Your task to perform on an android device: clear history in the chrome app Image 0: 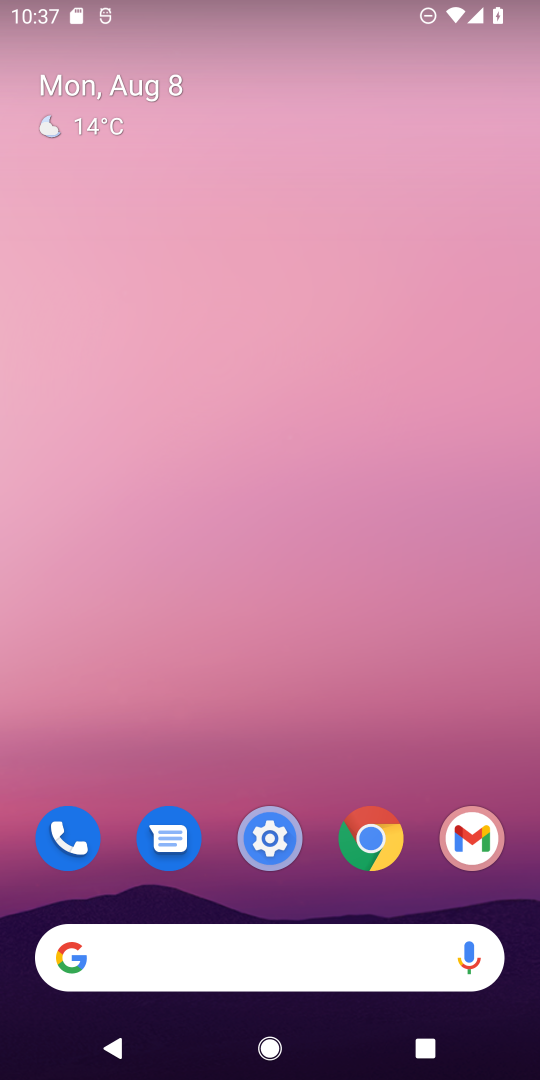
Step 0: press home button
Your task to perform on an android device: clear history in the chrome app Image 1: 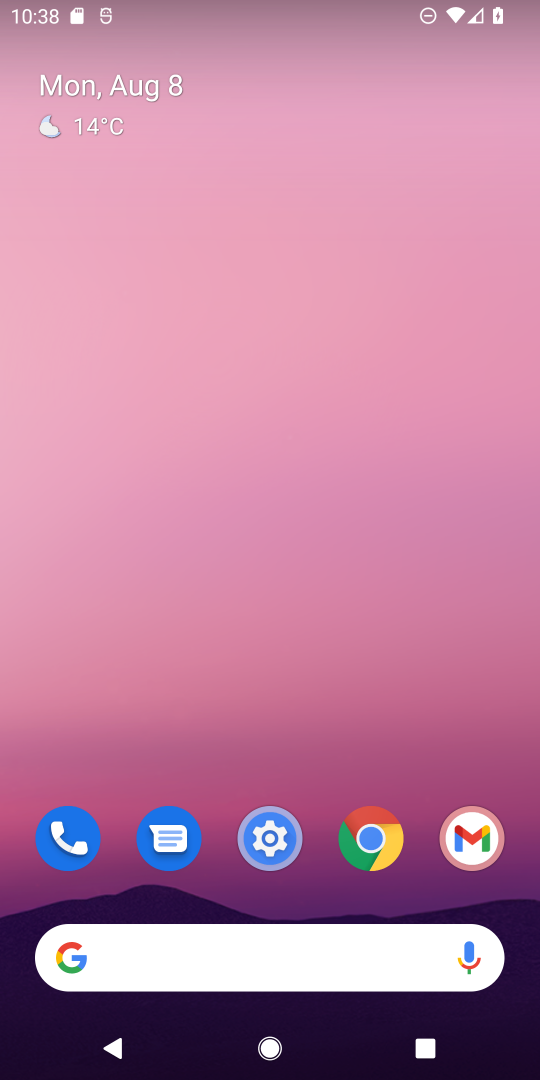
Step 1: click (369, 847)
Your task to perform on an android device: clear history in the chrome app Image 2: 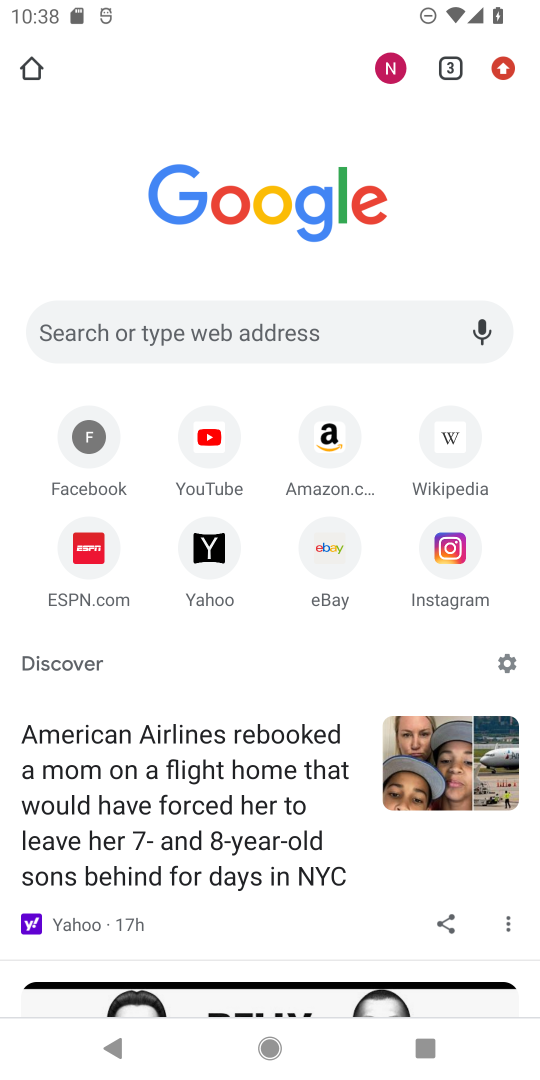
Step 2: click (504, 63)
Your task to perform on an android device: clear history in the chrome app Image 3: 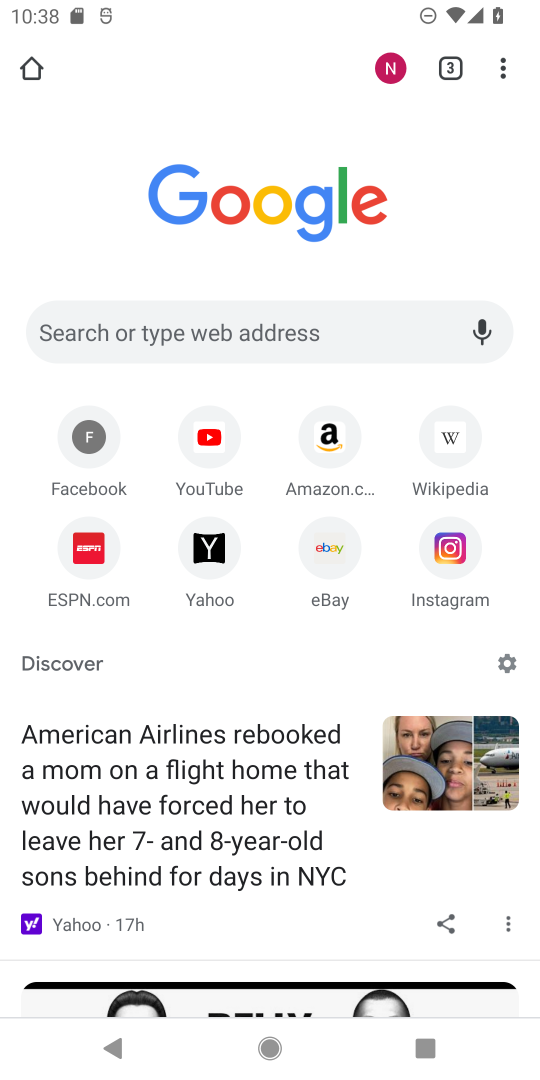
Step 3: drag from (504, 63) to (303, 362)
Your task to perform on an android device: clear history in the chrome app Image 4: 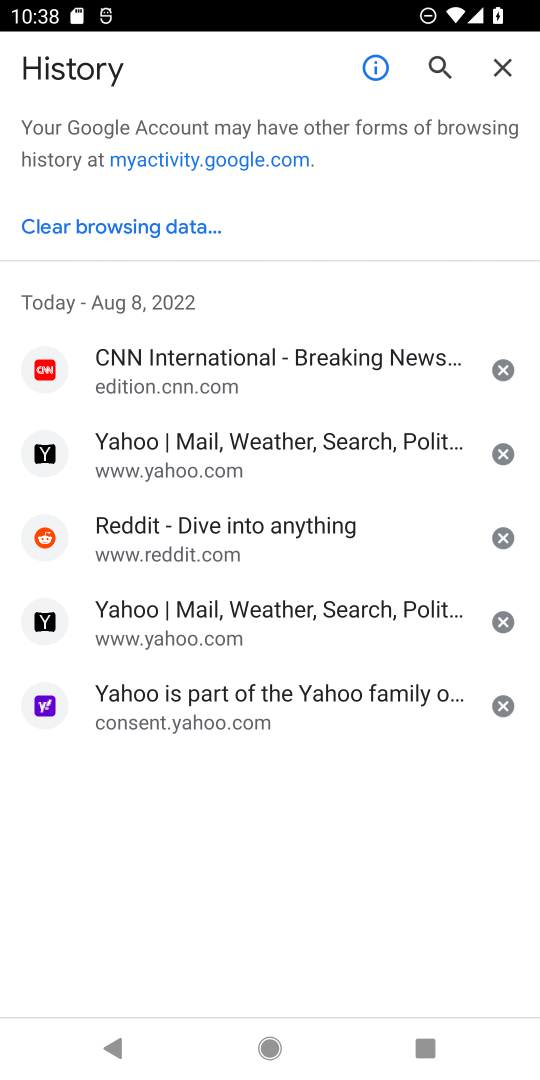
Step 4: click (127, 221)
Your task to perform on an android device: clear history in the chrome app Image 5: 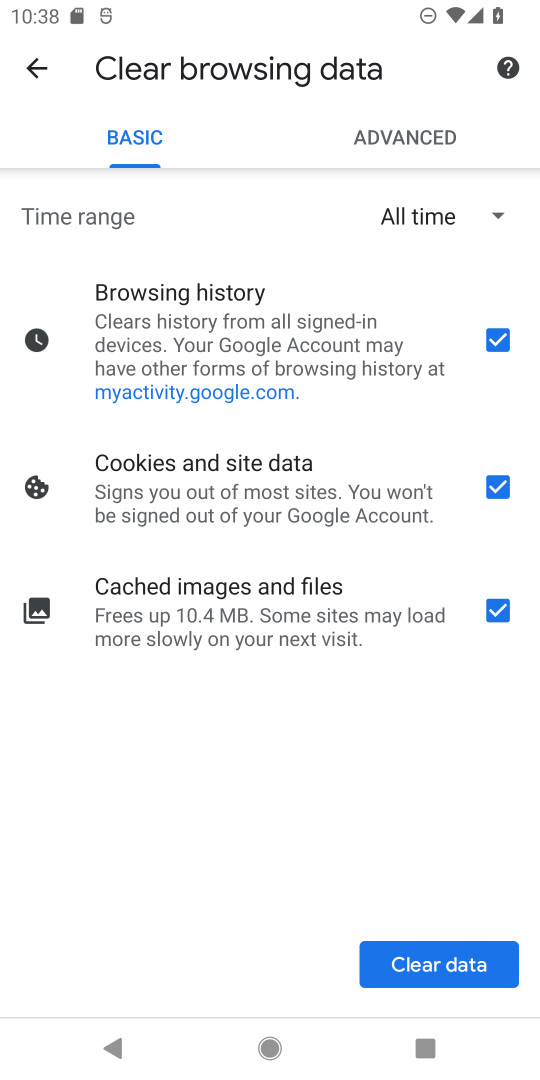
Step 5: click (508, 477)
Your task to perform on an android device: clear history in the chrome app Image 6: 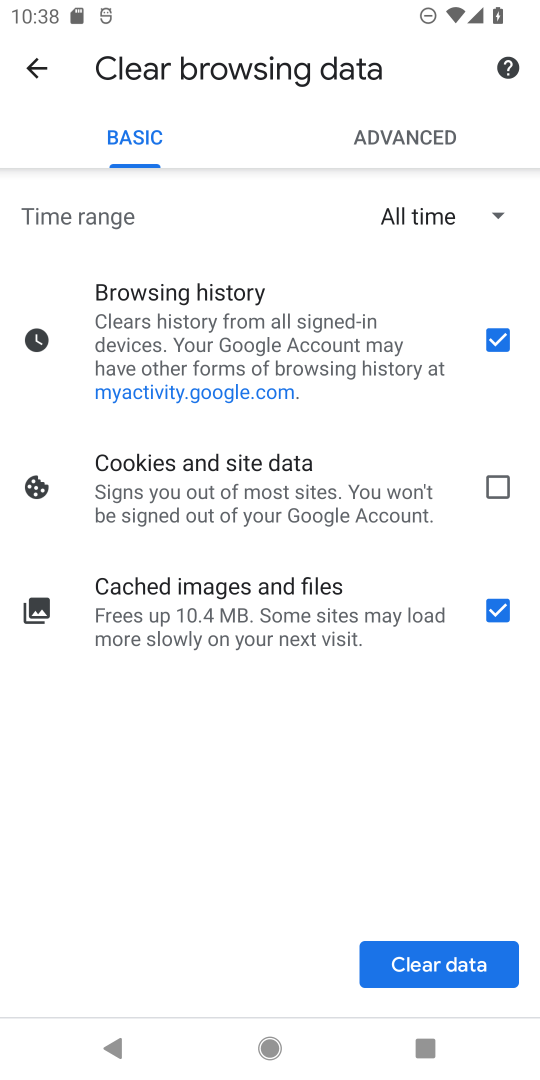
Step 6: click (502, 612)
Your task to perform on an android device: clear history in the chrome app Image 7: 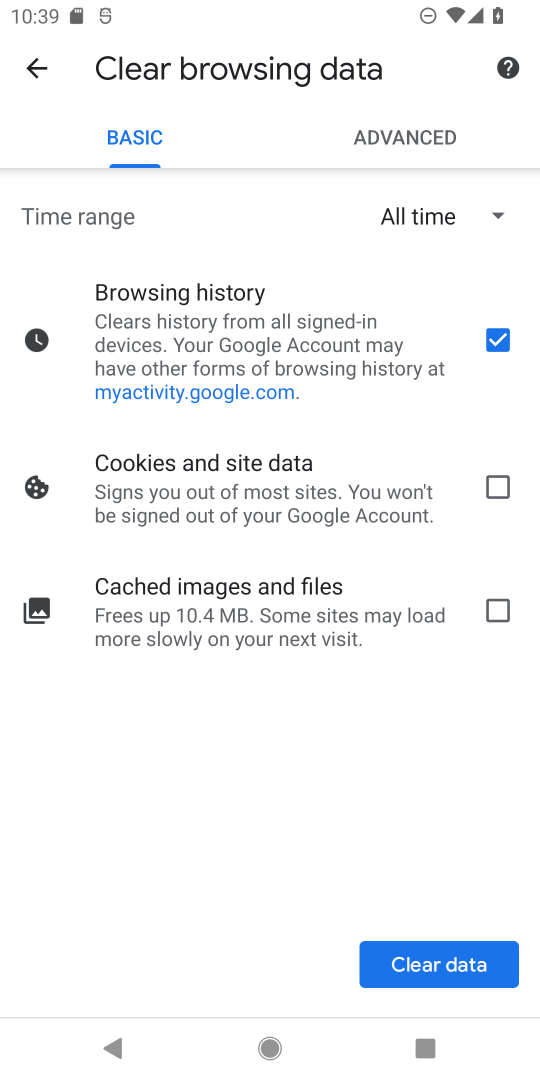
Step 7: click (400, 972)
Your task to perform on an android device: clear history in the chrome app Image 8: 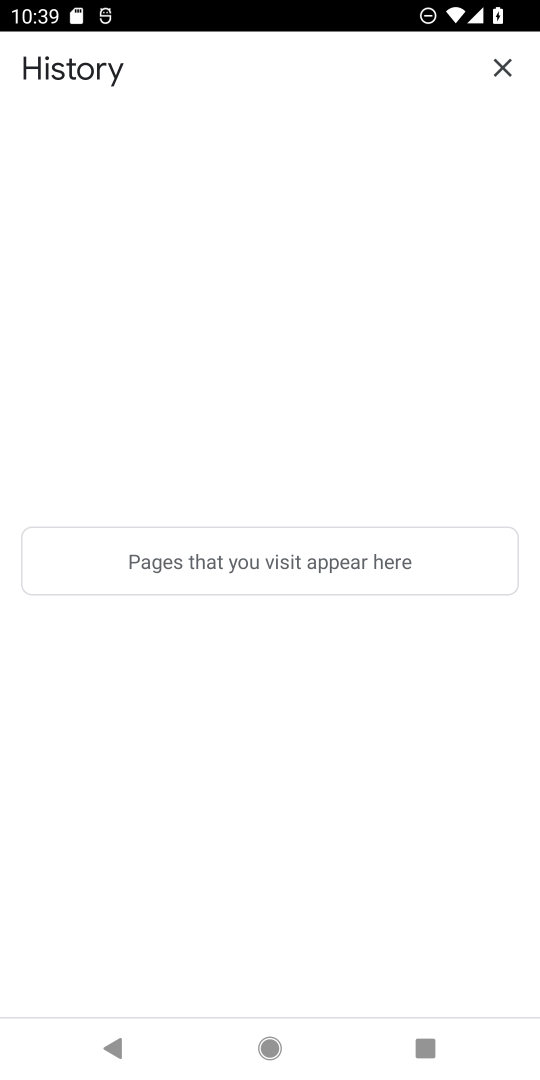
Step 8: task complete